Your task to perform on an android device: turn notification dots on Image 0: 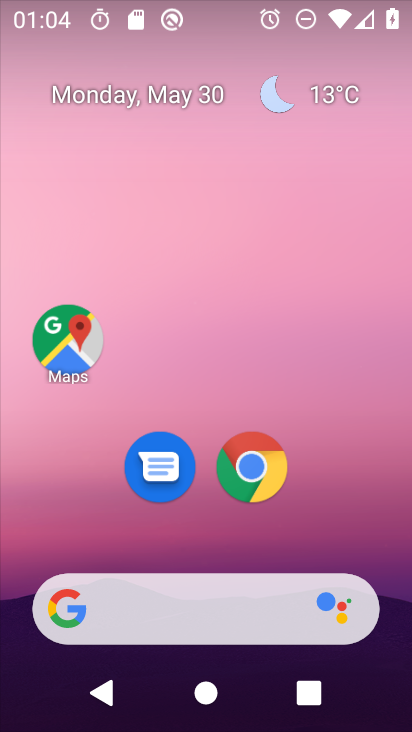
Step 0: drag from (201, 549) to (207, 188)
Your task to perform on an android device: turn notification dots on Image 1: 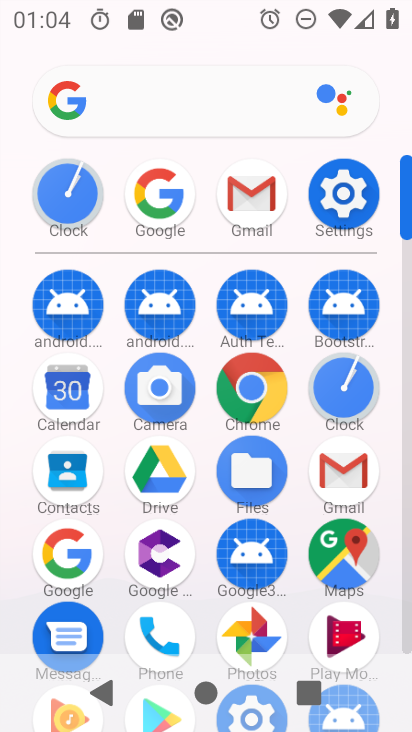
Step 1: click (347, 185)
Your task to perform on an android device: turn notification dots on Image 2: 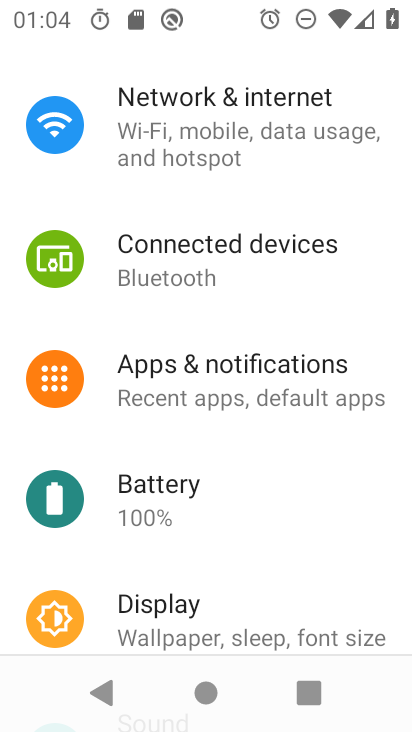
Step 2: drag from (222, 503) to (250, 267)
Your task to perform on an android device: turn notification dots on Image 3: 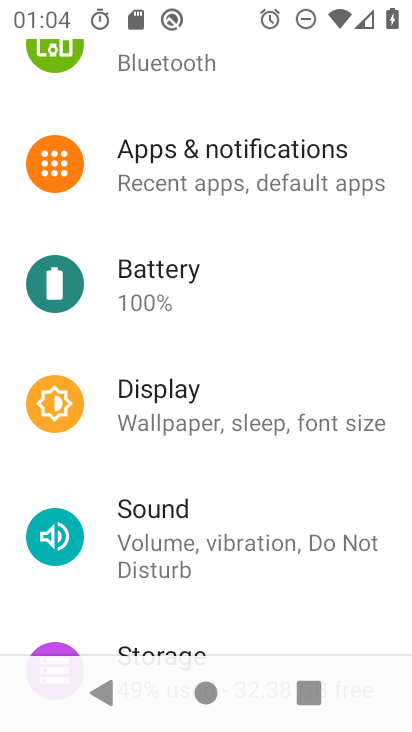
Step 3: click (228, 519)
Your task to perform on an android device: turn notification dots on Image 4: 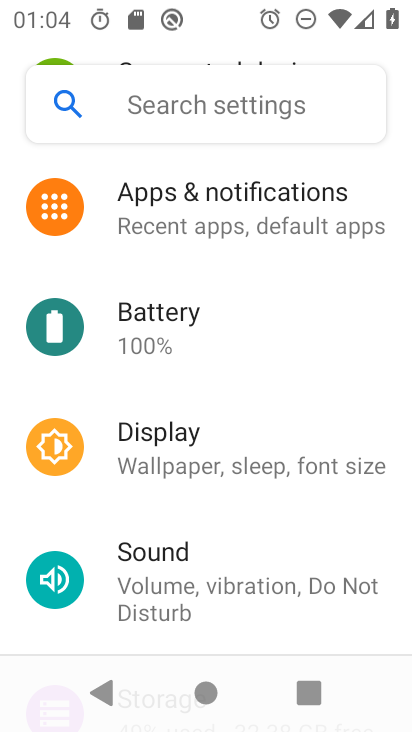
Step 4: drag from (217, 239) to (249, 535)
Your task to perform on an android device: turn notification dots on Image 5: 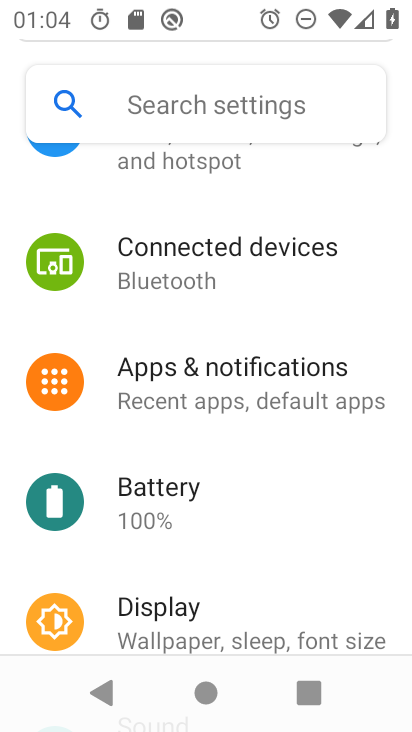
Step 5: click (243, 389)
Your task to perform on an android device: turn notification dots on Image 6: 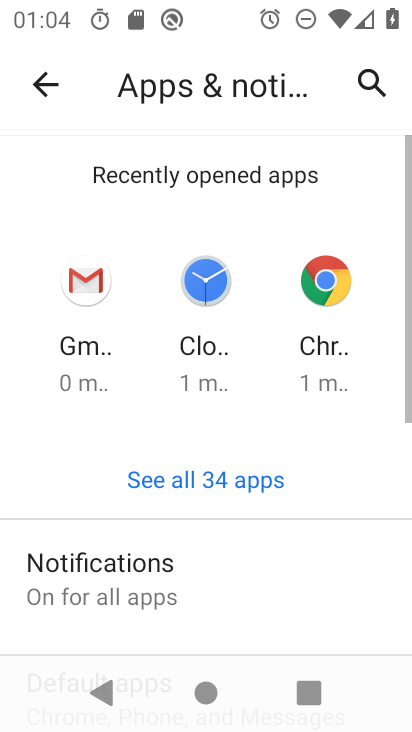
Step 6: drag from (223, 536) to (210, 264)
Your task to perform on an android device: turn notification dots on Image 7: 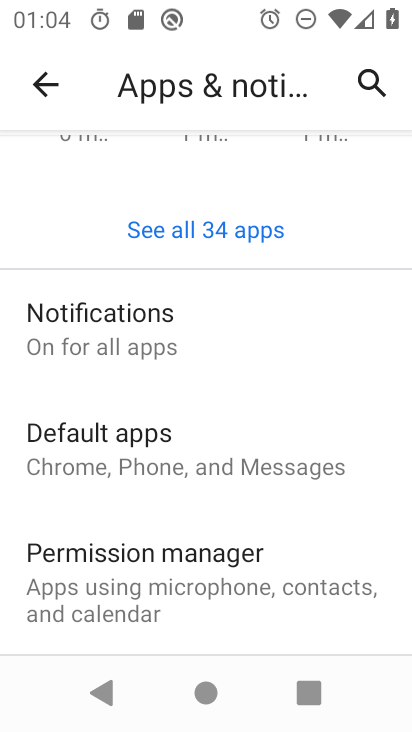
Step 7: click (210, 331)
Your task to perform on an android device: turn notification dots on Image 8: 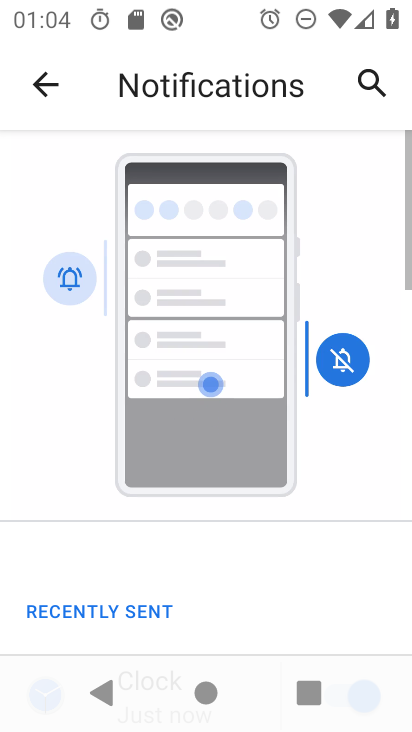
Step 8: drag from (221, 566) to (221, 226)
Your task to perform on an android device: turn notification dots on Image 9: 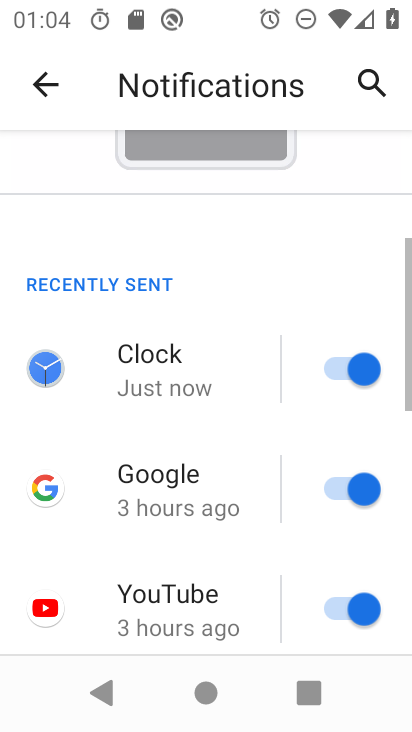
Step 9: drag from (220, 507) to (225, 263)
Your task to perform on an android device: turn notification dots on Image 10: 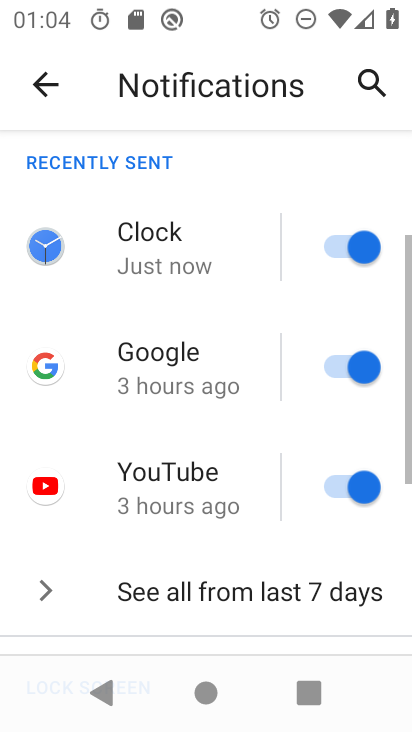
Step 10: drag from (208, 529) to (212, 253)
Your task to perform on an android device: turn notification dots on Image 11: 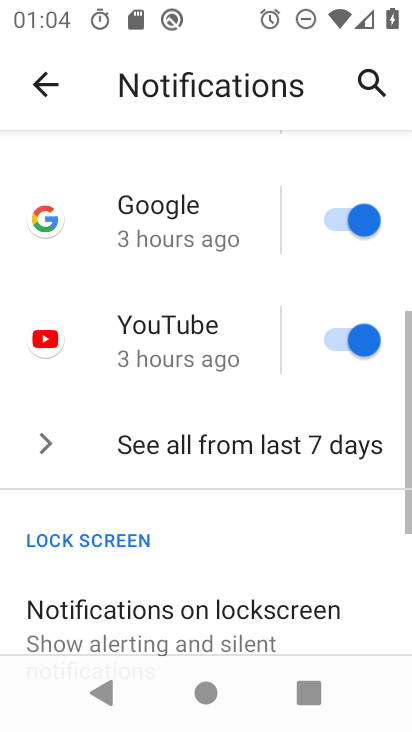
Step 11: drag from (245, 519) to (249, 264)
Your task to perform on an android device: turn notification dots on Image 12: 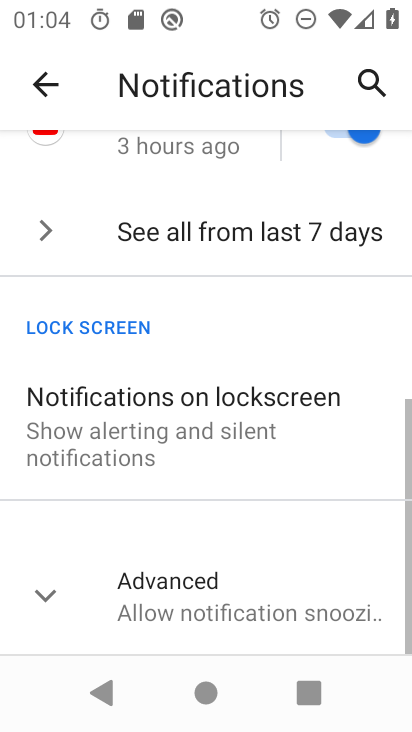
Step 12: drag from (265, 531) to (266, 325)
Your task to perform on an android device: turn notification dots on Image 13: 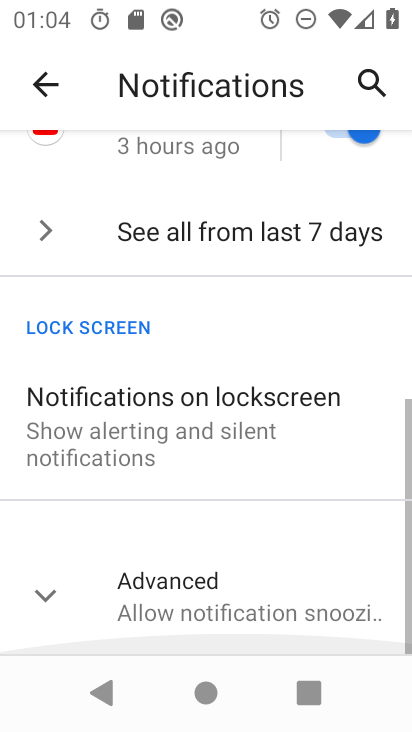
Step 13: drag from (246, 548) to (272, 326)
Your task to perform on an android device: turn notification dots on Image 14: 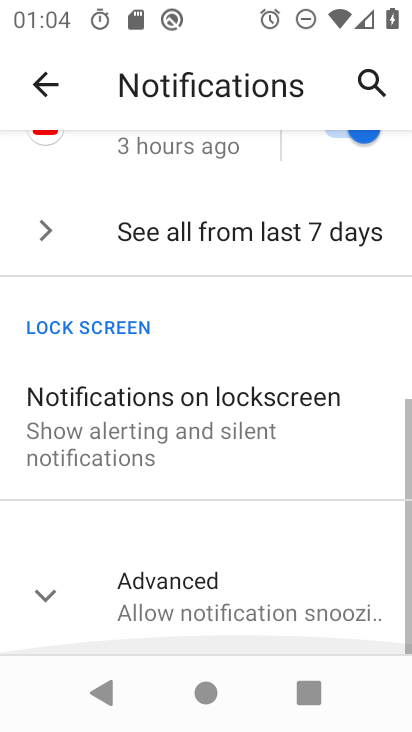
Step 14: click (228, 556)
Your task to perform on an android device: turn notification dots on Image 15: 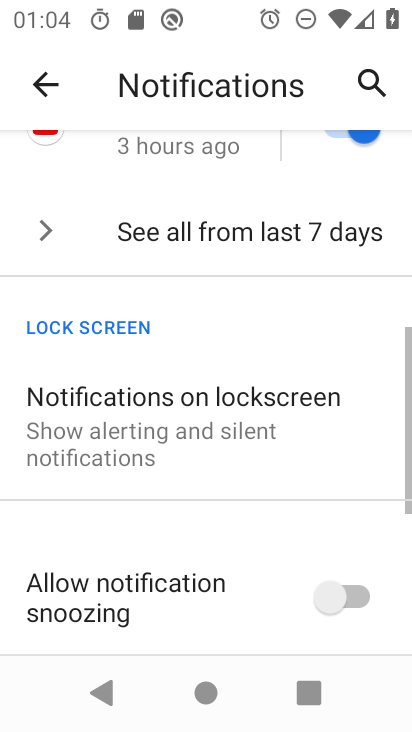
Step 15: drag from (230, 553) to (241, 250)
Your task to perform on an android device: turn notification dots on Image 16: 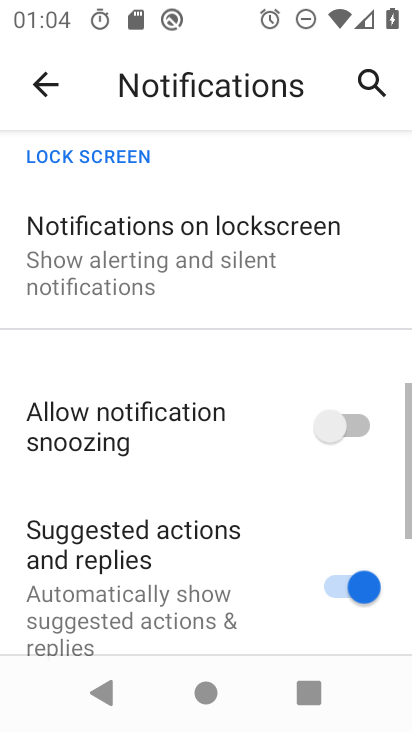
Step 16: drag from (258, 416) to (250, 276)
Your task to perform on an android device: turn notification dots on Image 17: 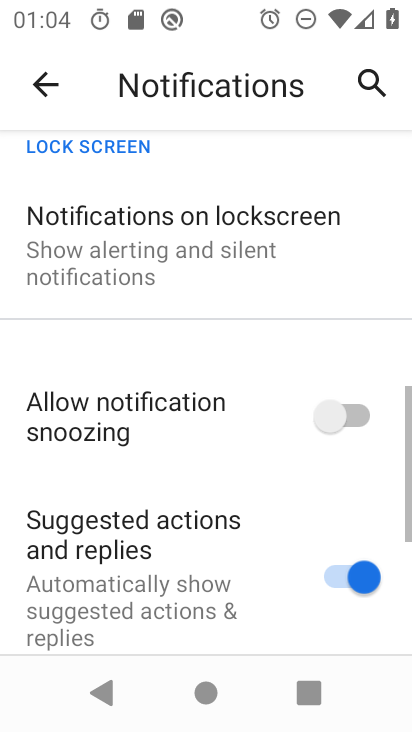
Step 17: drag from (249, 500) to (250, 263)
Your task to perform on an android device: turn notification dots on Image 18: 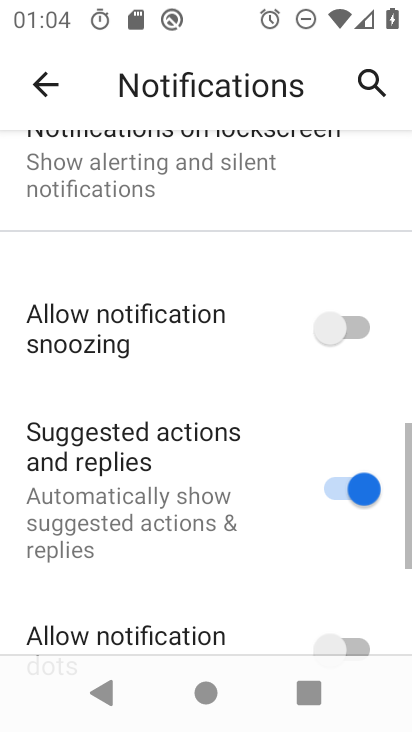
Step 18: drag from (250, 512) to (265, 263)
Your task to perform on an android device: turn notification dots on Image 19: 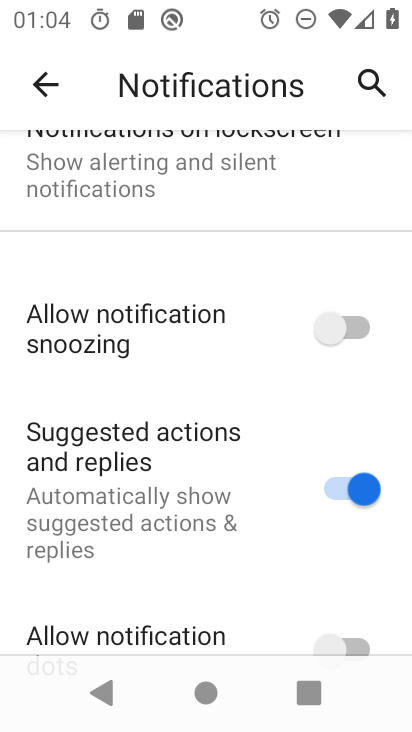
Step 19: drag from (251, 562) to (253, 223)
Your task to perform on an android device: turn notification dots on Image 20: 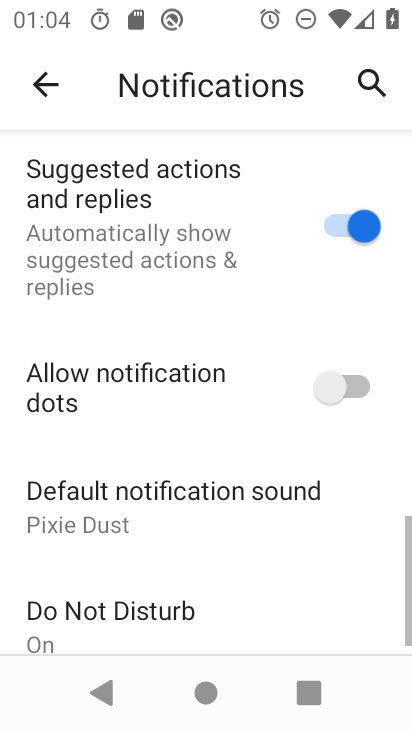
Step 20: drag from (296, 551) to (285, 293)
Your task to perform on an android device: turn notification dots on Image 21: 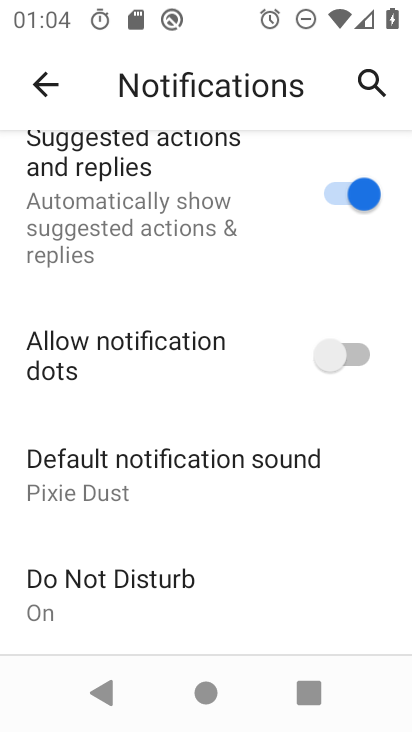
Step 21: click (347, 349)
Your task to perform on an android device: turn notification dots on Image 22: 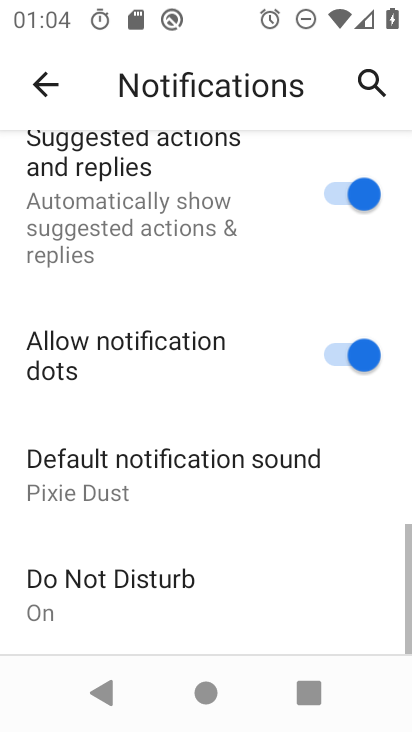
Step 22: task complete